Your task to perform on an android device: Go to Wikipedia Image 0: 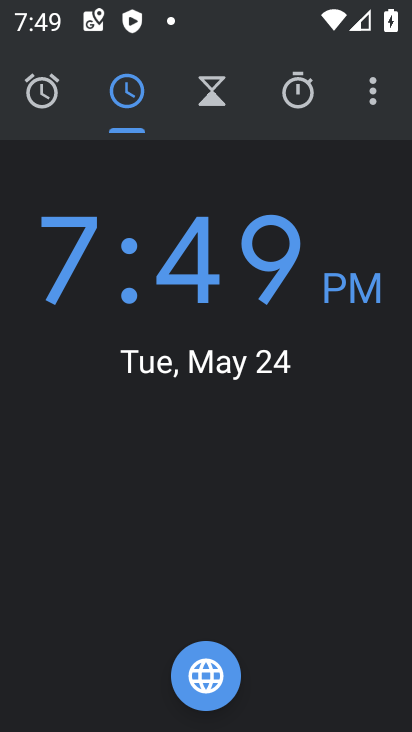
Step 0: press home button
Your task to perform on an android device: Go to Wikipedia Image 1: 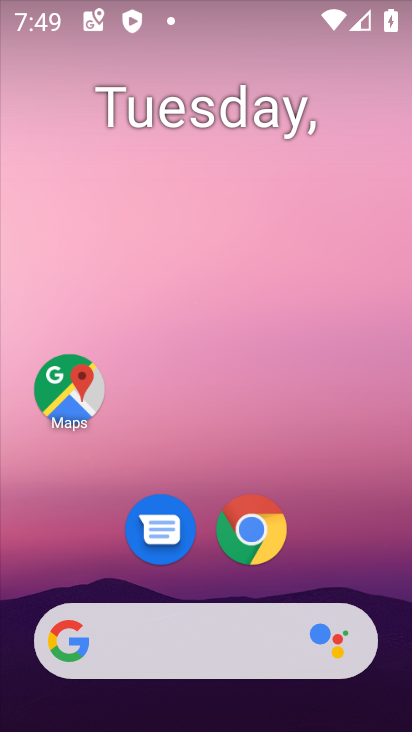
Step 1: drag from (246, 660) to (228, 112)
Your task to perform on an android device: Go to Wikipedia Image 2: 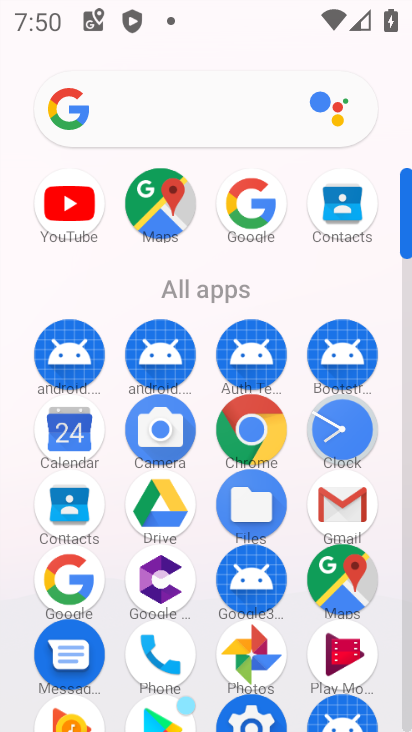
Step 2: drag from (215, 494) to (279, 198)
Your task to perform on an android device: Go to Wikipedia Image 3: 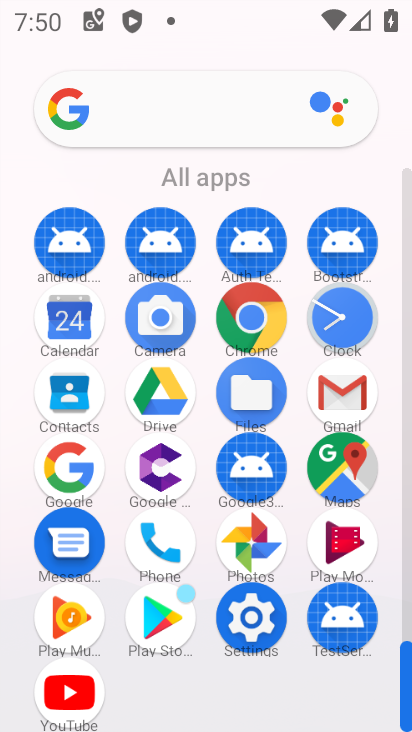
Step 3: click (257, 326)
Your task to perform on an android device: Go to Wikipedia Image 4: 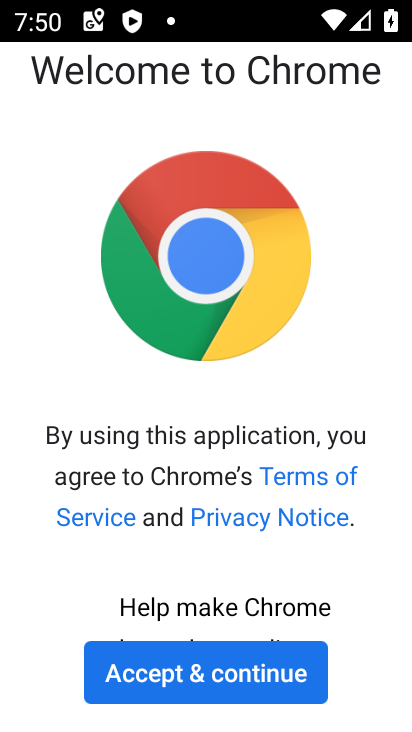
Step 4: click (252, 673)
Your task to perform on an android device: Go to Wikipedia Image 5: 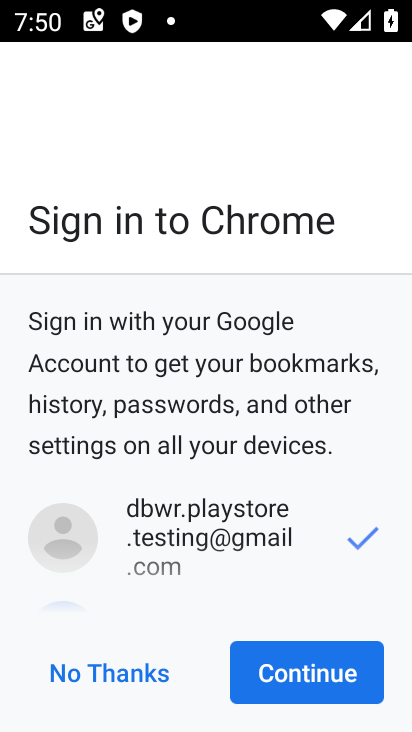
Step 5: click (343, 678)
Your task to perform on an android device: Go to Wikipedia Image 6: 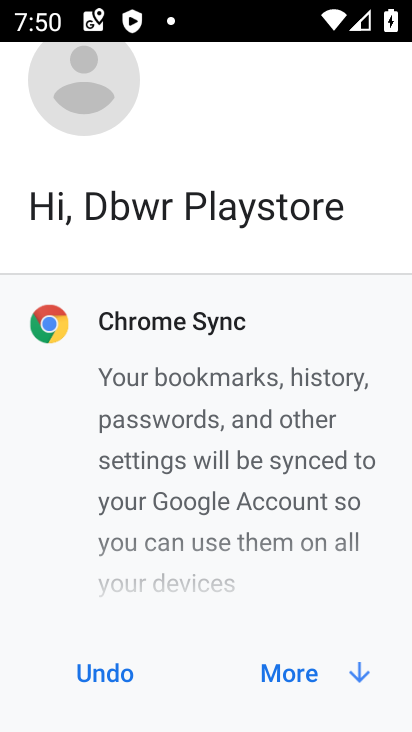
Step 6: click (338, 688)
Your task to perform on an android device: Go to Wikipedia Image 7: 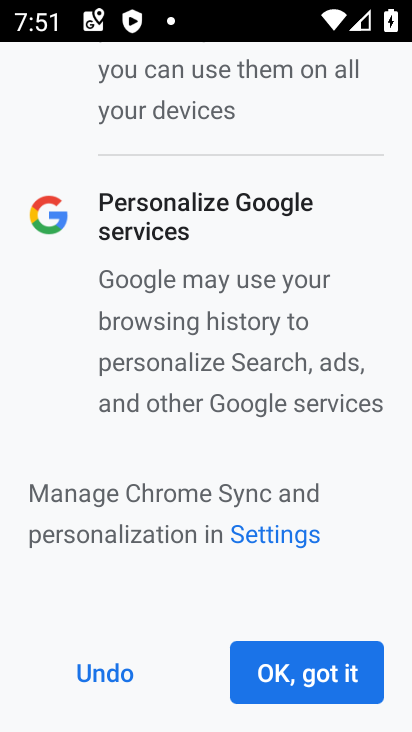
Step 7: click (335, 677)
Your task to perform on an android device: Go to Wikipedia Image 8: 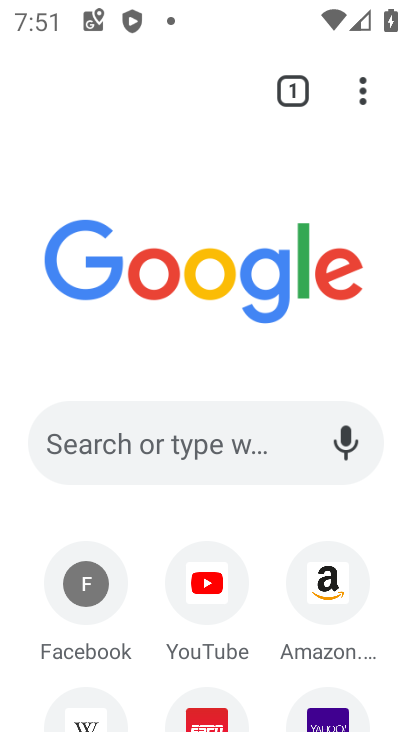
Step 8: drag from (200, 542) to (256, 75)
Your task to perform on an android device: Go to Wikipedia Image 9: 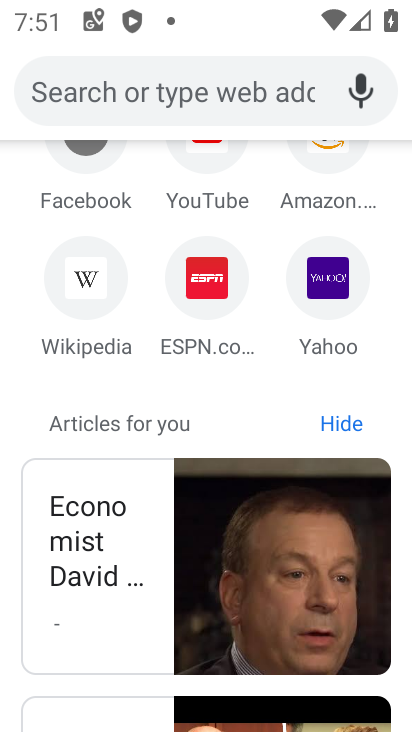
Step 9: click (91, 283)
Your task to perform on an android device: Go to Wikipedia Image 10: 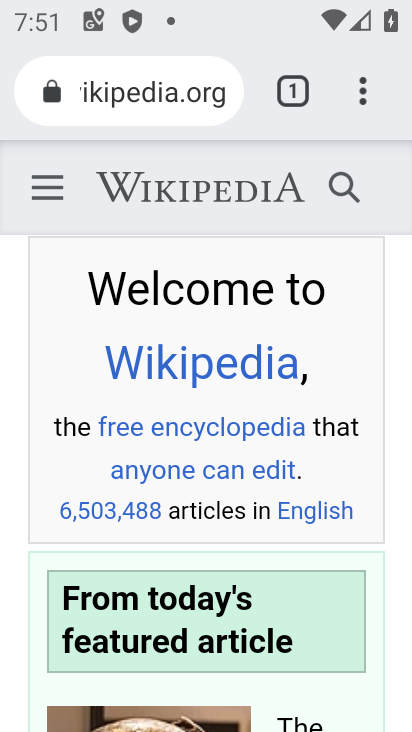
Step 10: click (363, 97)
Your task to perform on an android device: Go to Wikipedia Image 11: 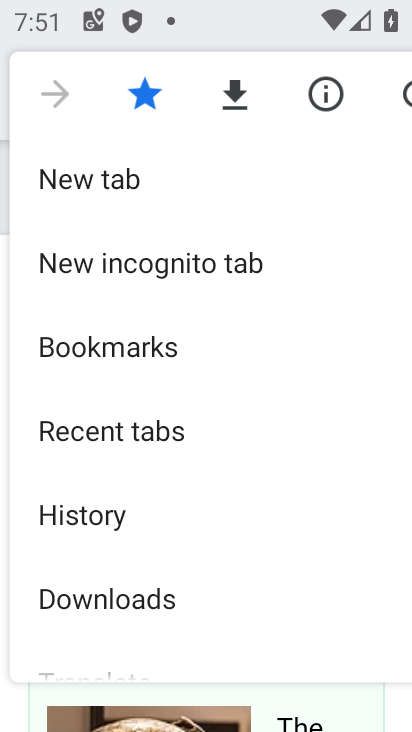
Step 11: task complete